Your task to perform on an android device: What's the weather today? Image 0: 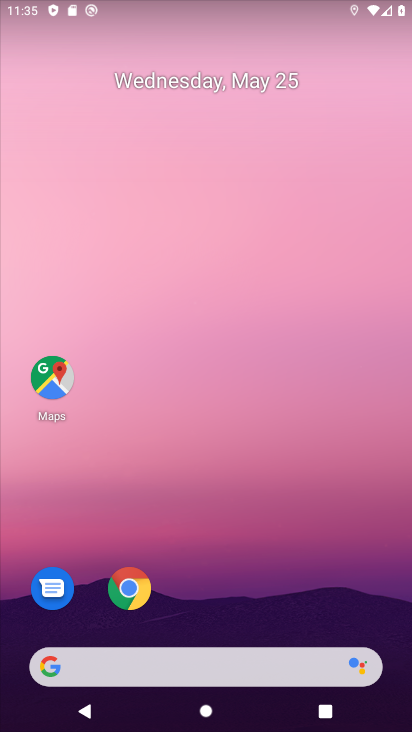
Step 0: click (129, 588)
Your task to perform on an android device: What's the weather today? Image 1: 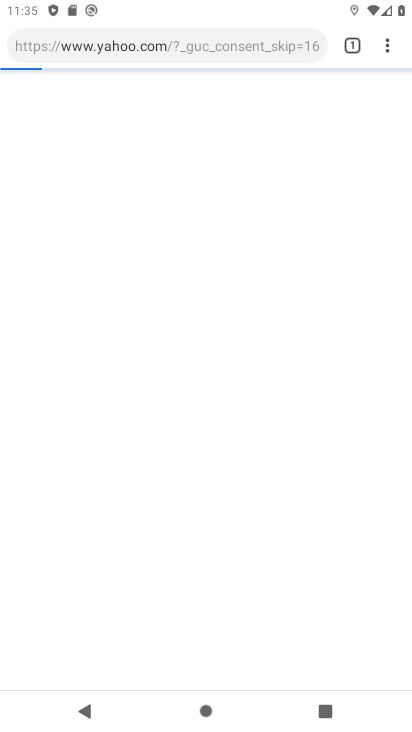
Step 1: click (119, 54)
Your task to perform on an android device: What's the weather today? Image 2: 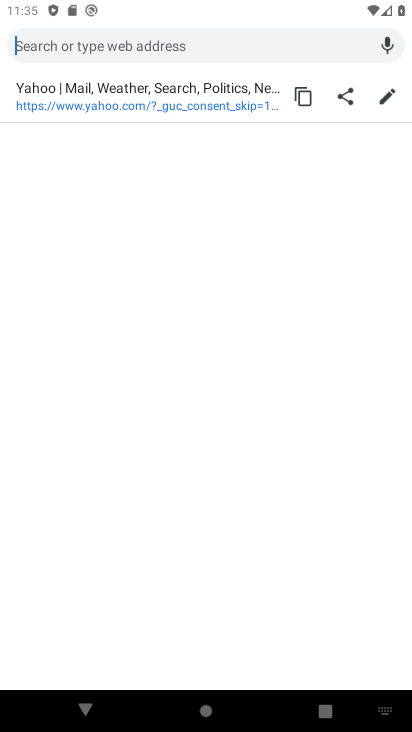
Step 2: type "weather"
Your task to perform on an android device: What's the weather today? Image 3: 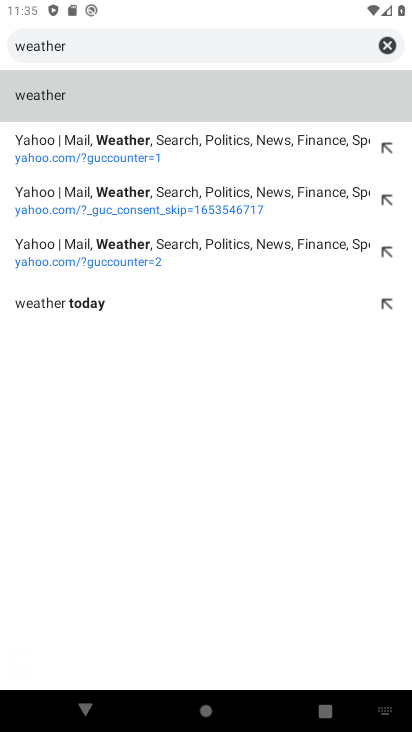
Step 3: click (109, 107)
Your task to perform on an android device: What's the weather today? Image 4: 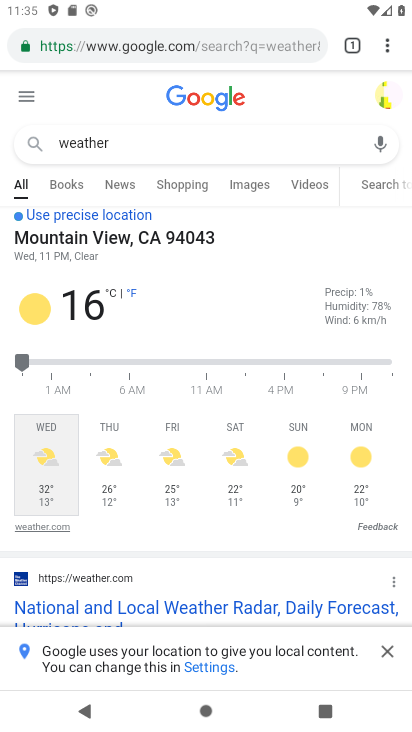
Step 4: task complete